Your task to perform on an android device: turn on translation in the chrome app Image 0: 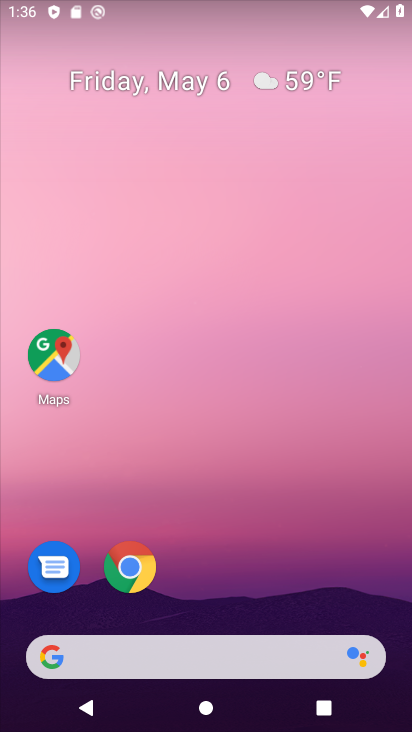
Step 0: click (134, 569)
Your task to perform on an android device: turn on translation in the chrome app Image 1: 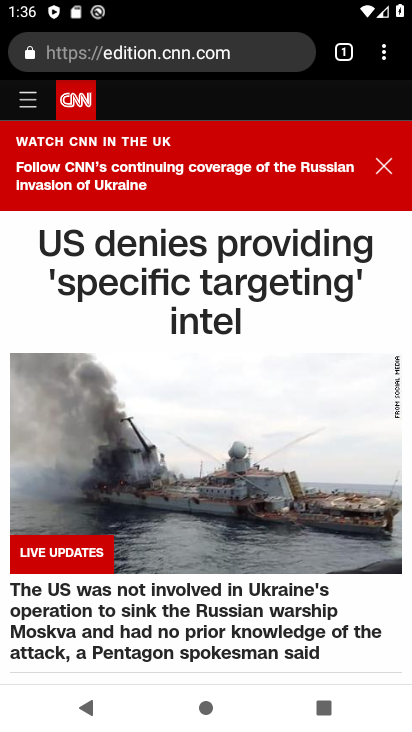
Step 1: click (384, 56)
Your task to perform on an android device: turn on translation in the chrome app Image 2: 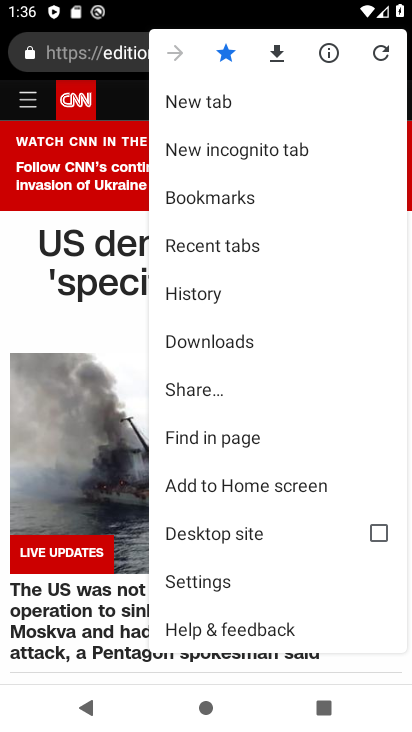
Step 2: click (208, 585)
Your task to perform on an android device: turn on translation in the chrome app Image 3: 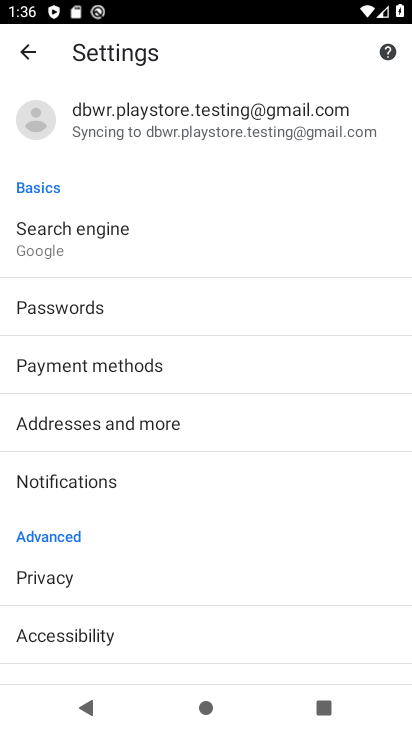
Step 3: drag from (153, 568) to (191, 475)
Your task to perform on an android device: turn on translation in the chrome app Image 4: 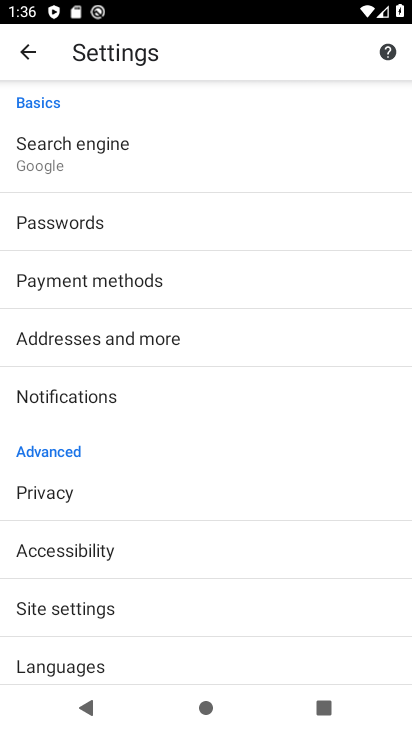
Step 4: drag from (138, 601) to (174, 493)
Your task to perform on an android device: turn on translation in the chrome app Image 5: 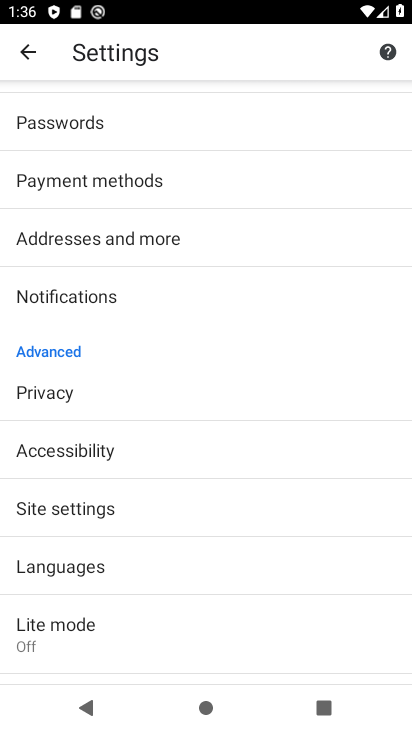
Step 5: click (92, 572)
Your task to perform on an android device: turn on translation in the chrome app Image 6: 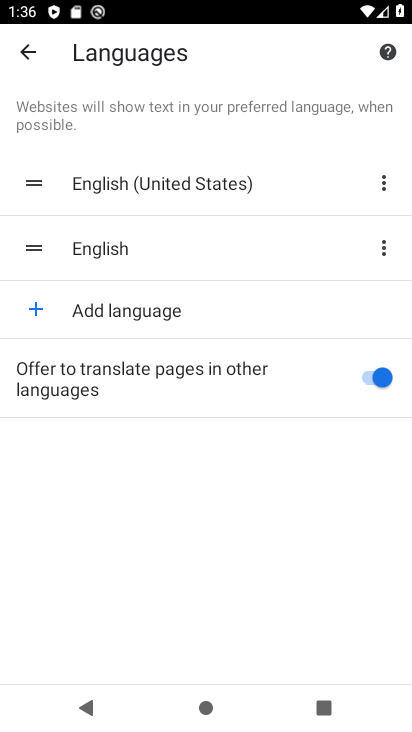
Step 6: task complete